Your task to perform on an android device: turn off airplane mode Image 0: 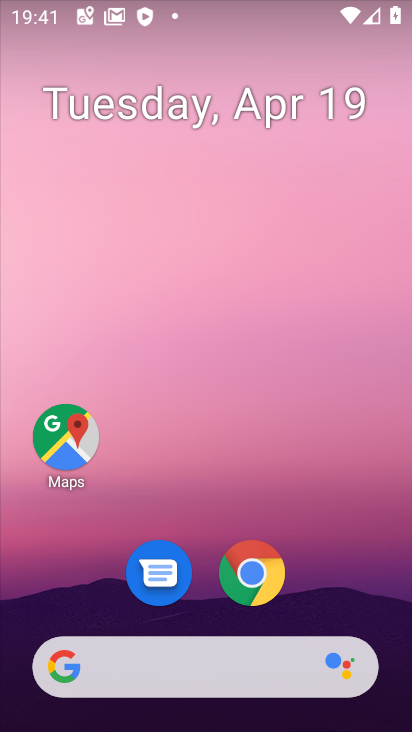
Step 0: drag from (375, 598) to (360, 123)
Your task to perform on an android device: turn off airplane mode Image 1: 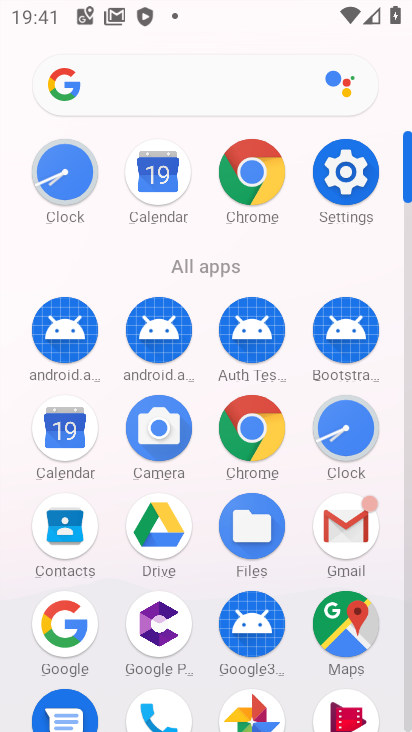
Step 1: click (347, 167)
Your task to perform on an android device: turn off airplane mode Image 2: 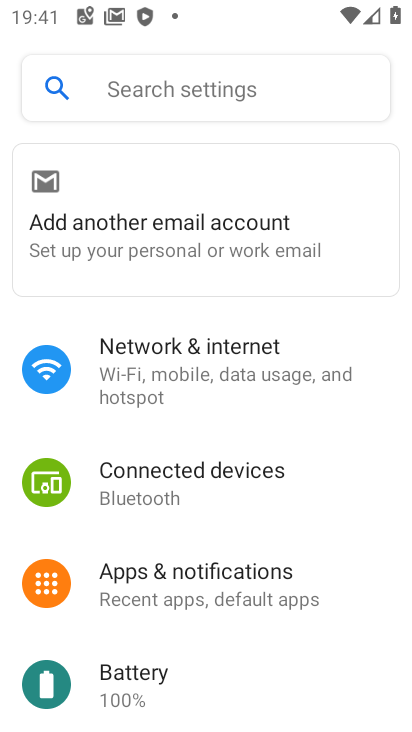
Step 2: click (138, 378)
Your task to perform on an android device: turn off airplane mode Image 3: 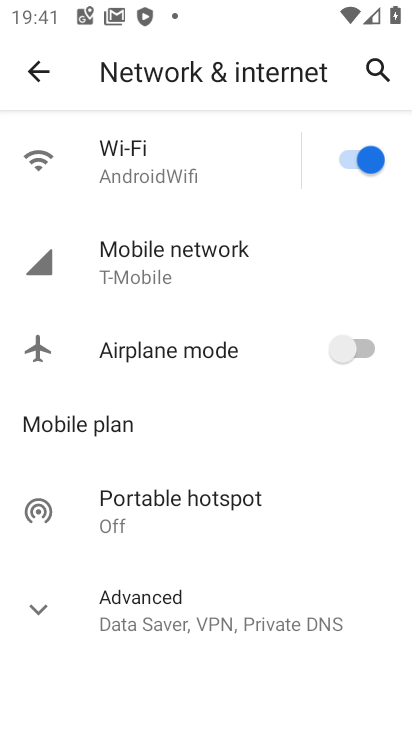
Step 3: task complete